Your task to perform on an android device: Play the last video I watched on Youtube Image 0: 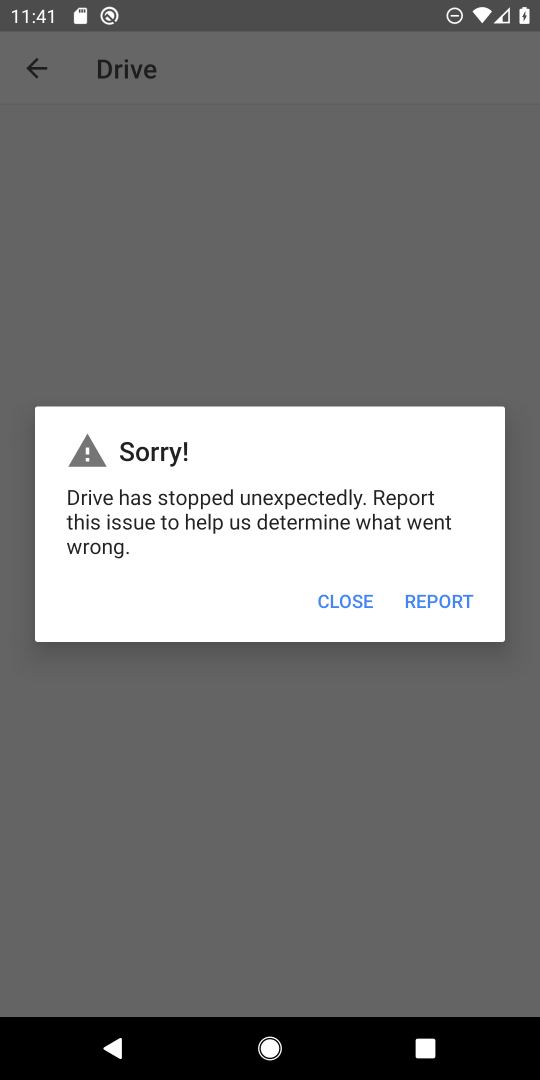
Step 0: click (329, 609)
Your task to perform on an android device: Play the last video I watched on Youtube Image 1: 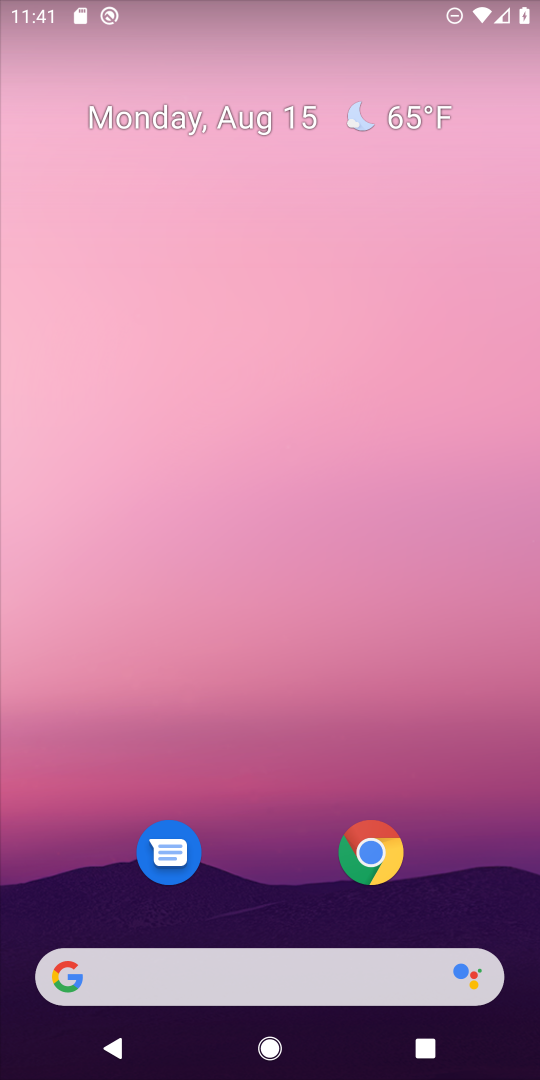
Step 1: drag from (241, 927) to (342, 164)
Your task to perform on an android device: Play the last video I watched on Youtube Image 2: 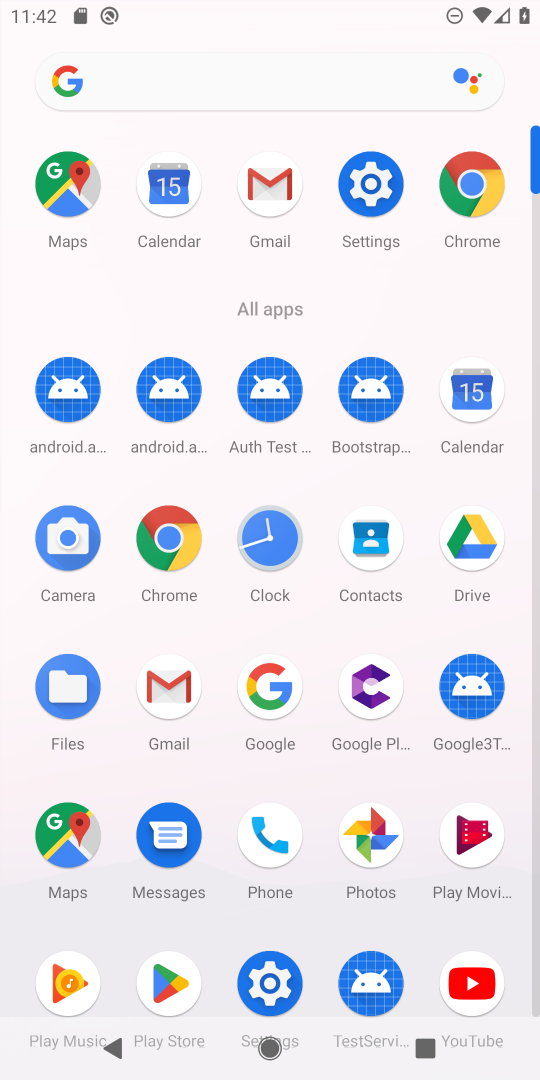
Step 2: click (472, 996)
Your task to perform on an android device: Play the last video I watched on Youtube Image 3: 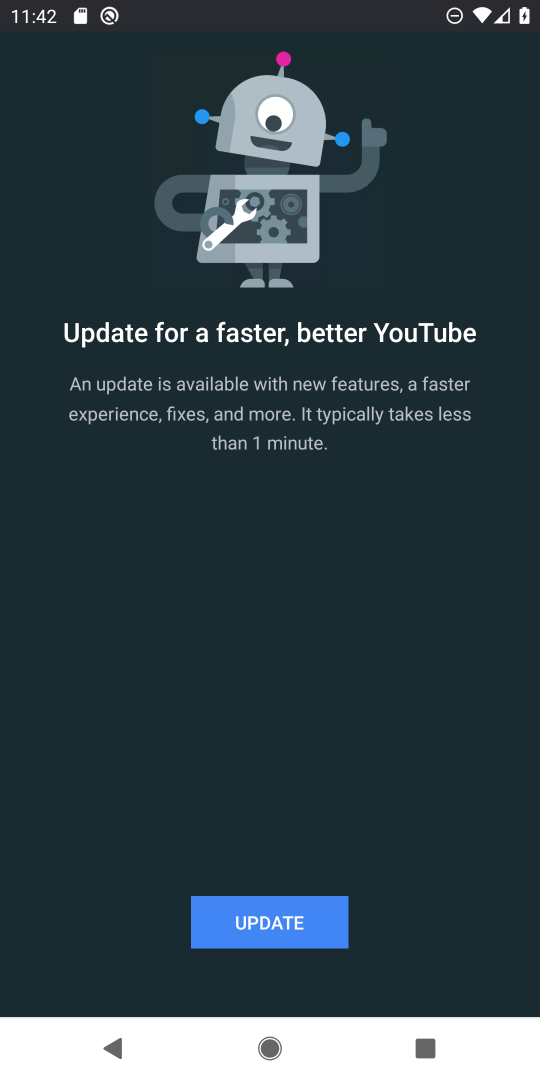
Step 3: click (270, 915)
Your task to perform on an android device: Play the last video I watched on Youtube Image 4: 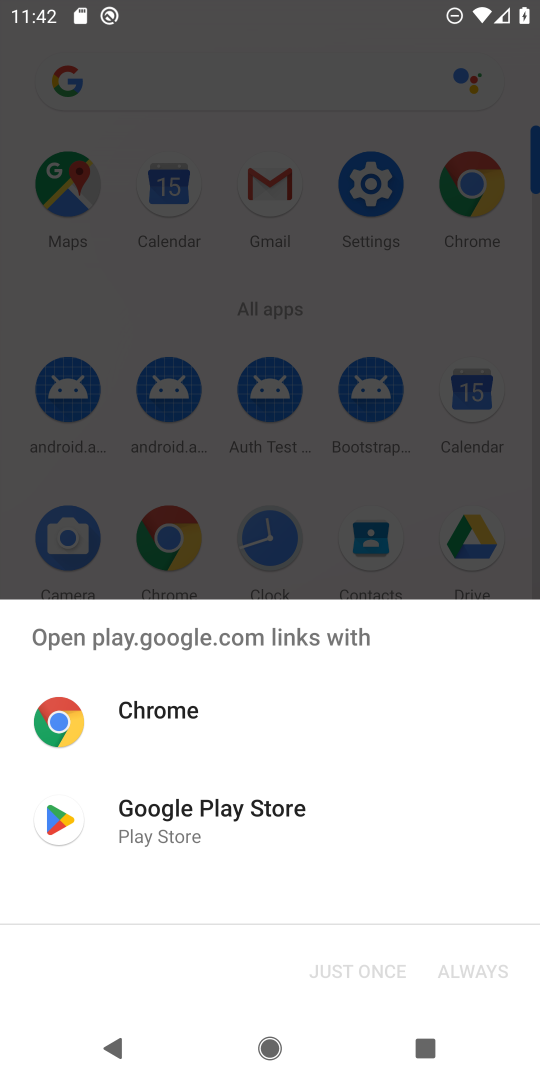
Step 4: click (212, 808)
Your task to perform on an android device: Play the last video I watched on Youtube Image 5: 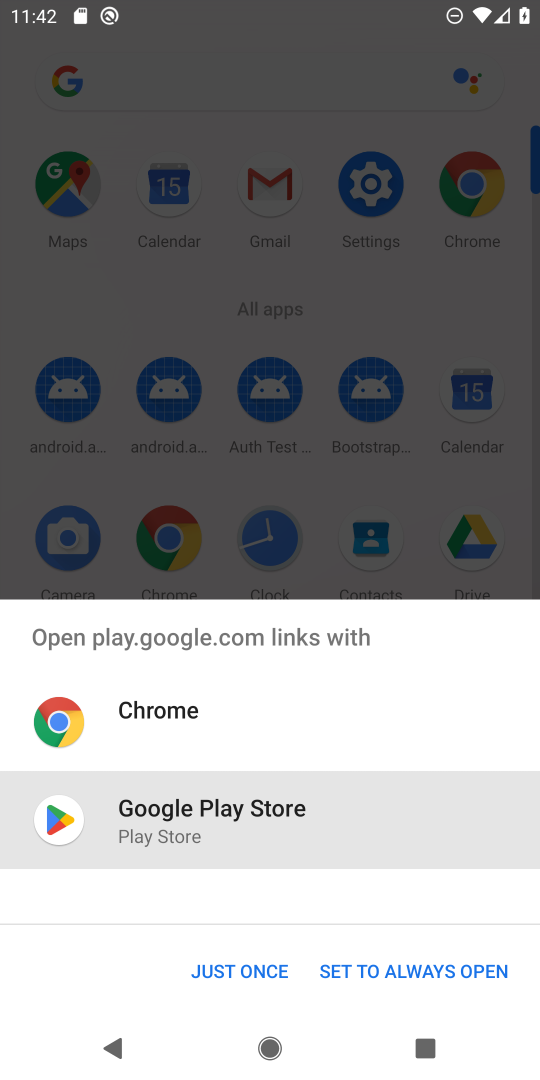
Step 5: click (257, 957)
Your task to perform on an android device: Play the last video I watched on Youtube Image 6: 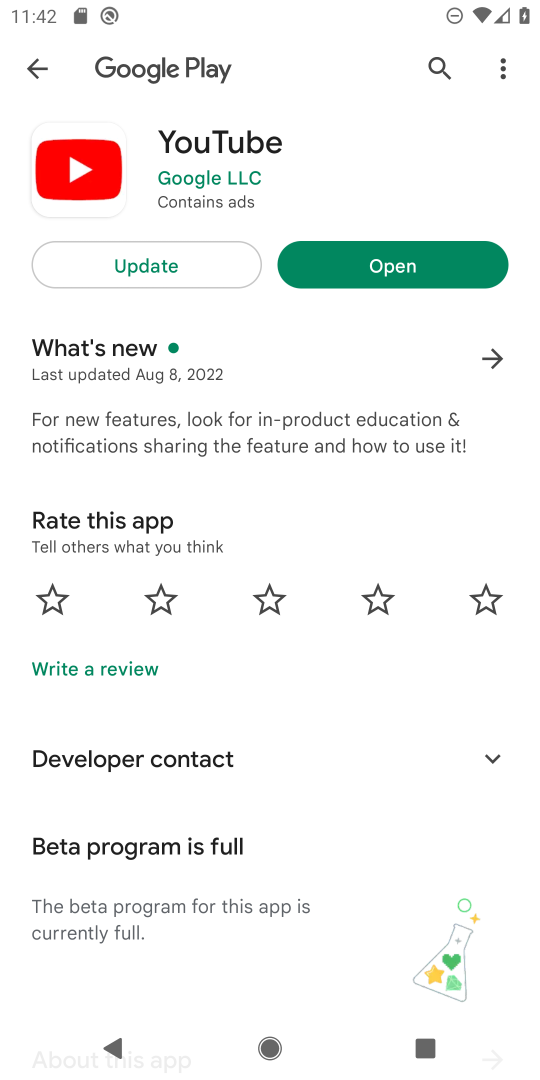
Step 6: click (197, 262)
Your task to perform on an android device: Play the last video I watched on Youtube Image 7: 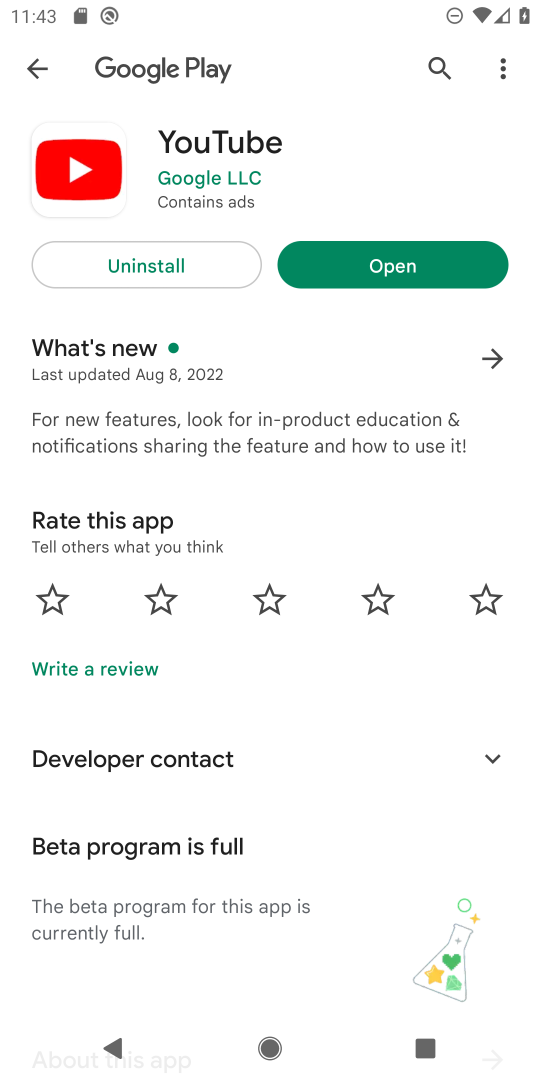
Step 7: click (386, 270)
Your task to perform on an android device: Play the last video I watched on Youtube Image 8: 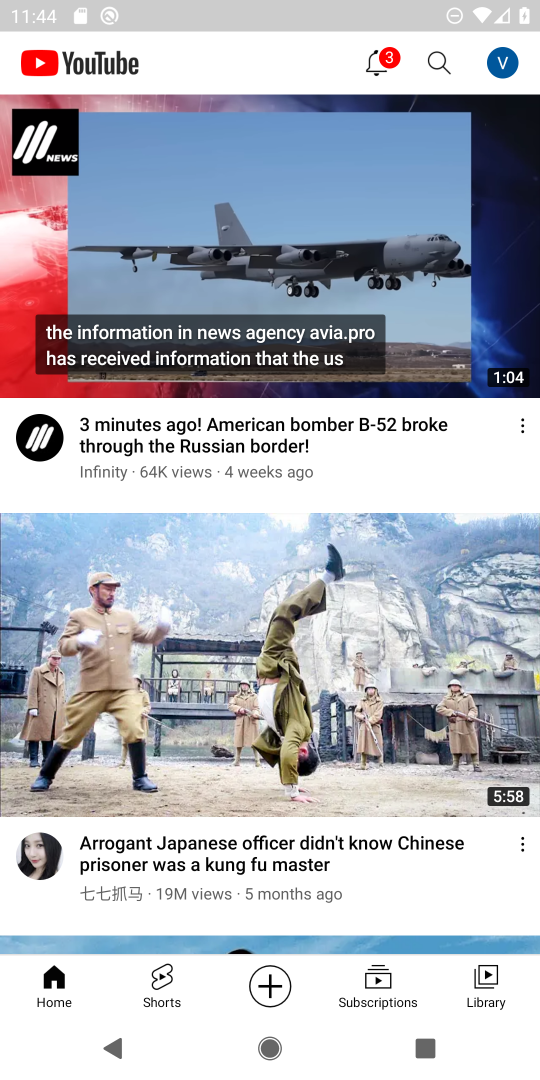
Step 8: click (483, 983)
Your task to perform on an android device: Play the last video I watched on Youtube Image 9: 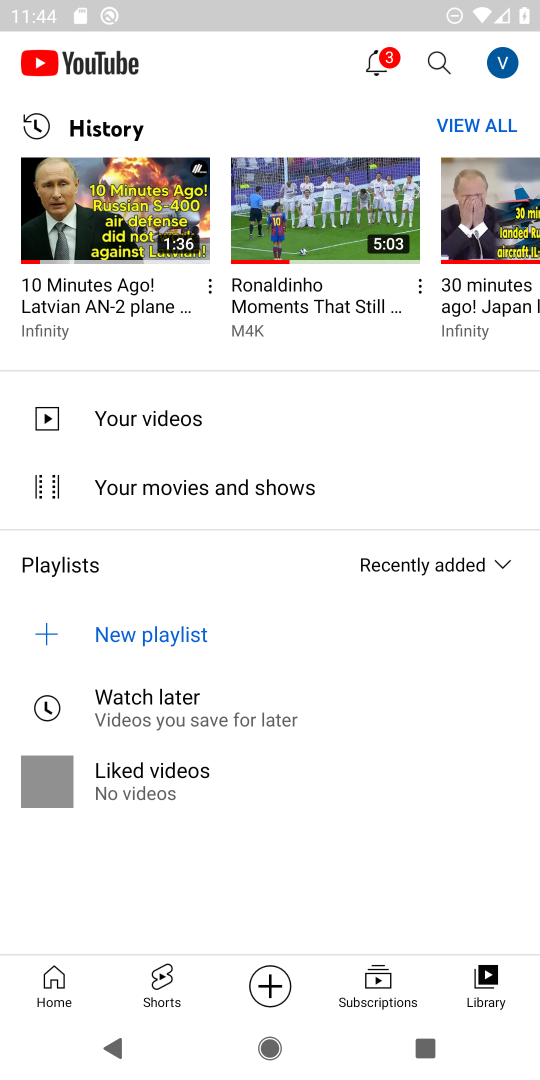
Step 9: click (121, 212)
Your task to perform on an android device: Play the last video I watched on Youtube Image 10: 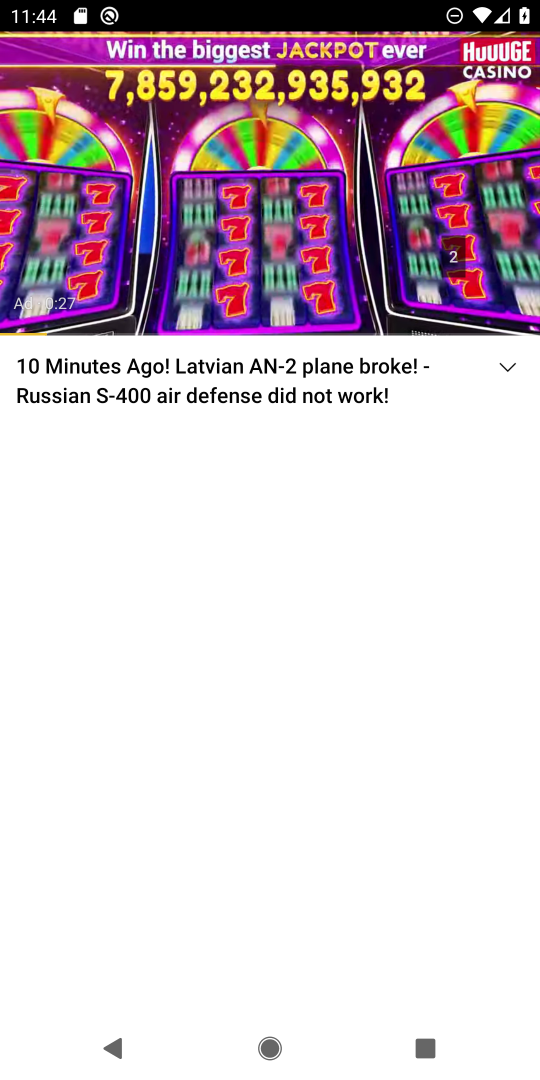
Step 10: click (230, 211)
Your task to perform on an android device: Play the last video I watched on Youtube Image 11: 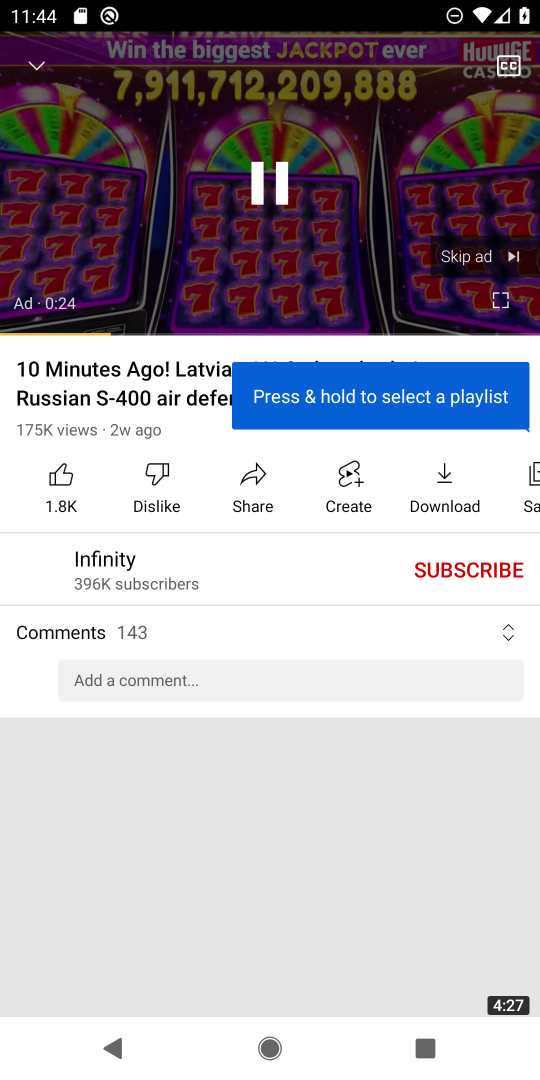
Step 11: click (274, 191)
Your task to perform on an android device: Play the last video I watched on Youtube Image 12: 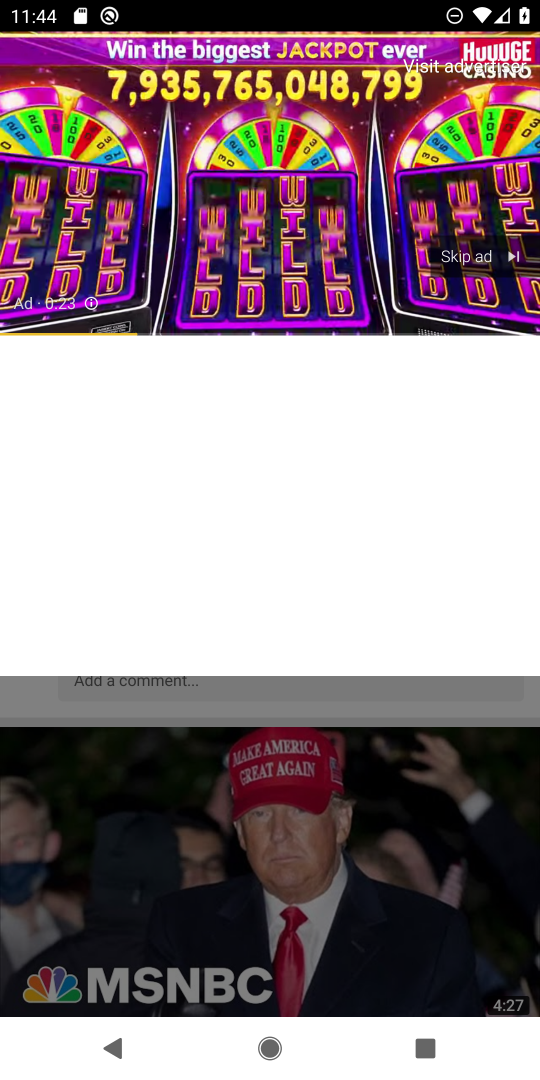
Step 12: task complete